Your task to perform on an android device: What's the weather? Image 0: 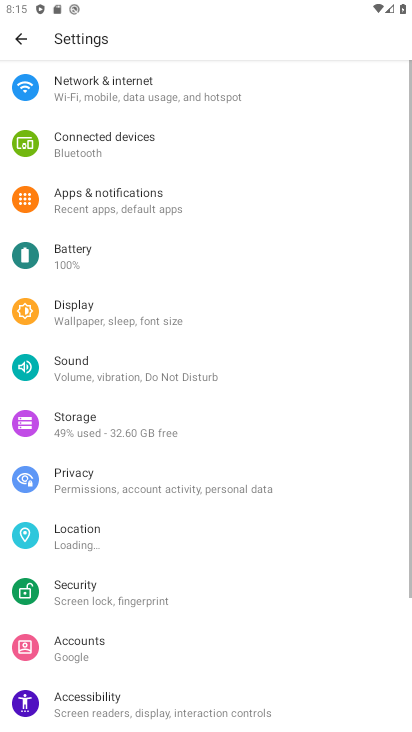
Step 0: press home button
Your task to perform on an android device: What's the weather? Image 1: 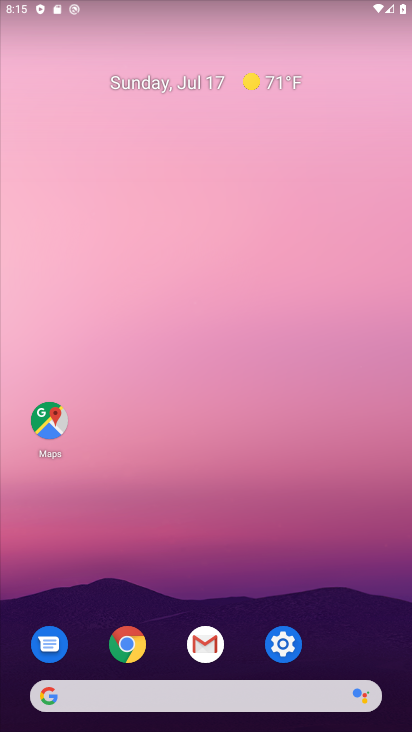
Step 1: click (186, 702)
Your task to perform on an android device: What's the weather? Image 2: 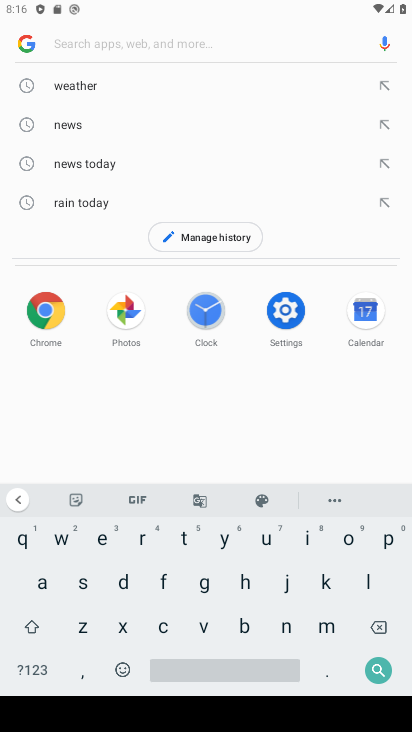
Step 2: click (101, 90)
Your task to perform on an android device: What's the weather? Image 3: 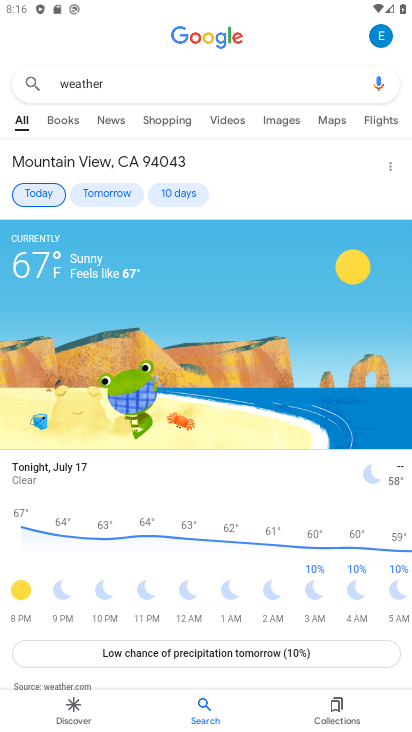
Step 3: task complete